Your task to perform on an android device: What's the weather today? Image 0: 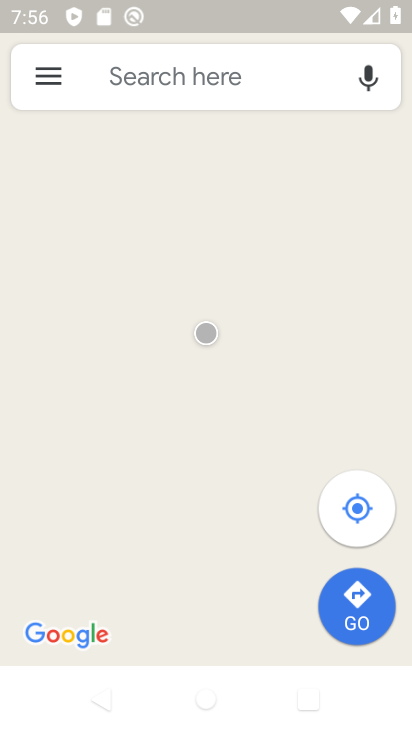
Step 0: press back button
Your task to perform on an android device: What's the weather today? Image 1: 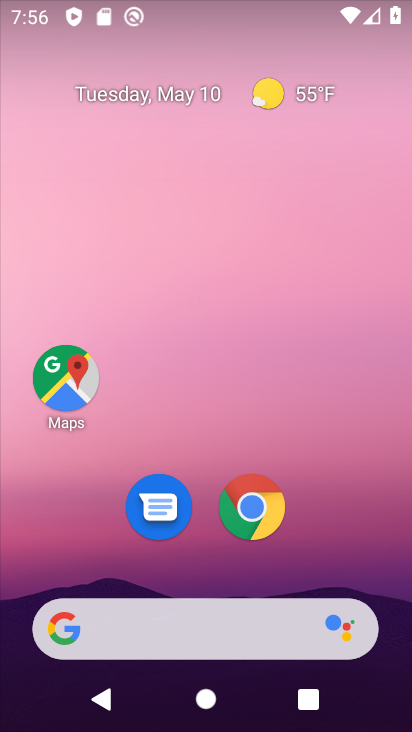
Step 1: click (294, 84)
Your task to perform on an android device: What's the weather today? Image 2: 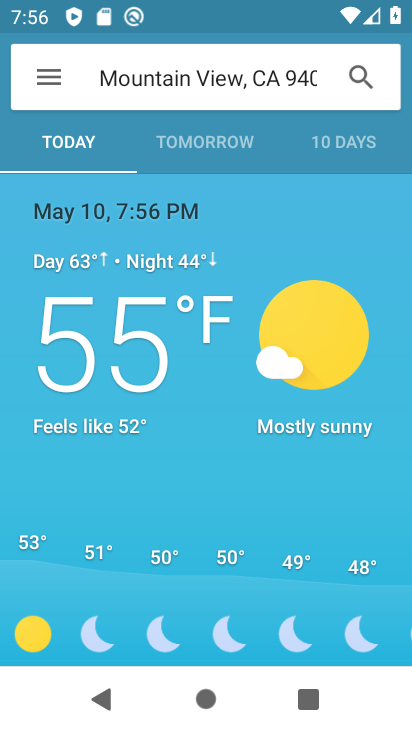
Step 2: task complete